Your task to perform on an android device: read, delete, or share a saved page in the chrome app Image 0: 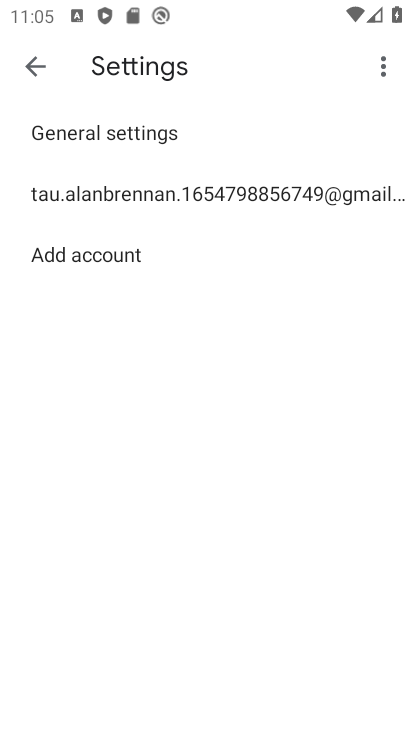
Step 0: press home button
Your task to perform on an android device: read, delete, or share a saved page in the chrome app Image 1: 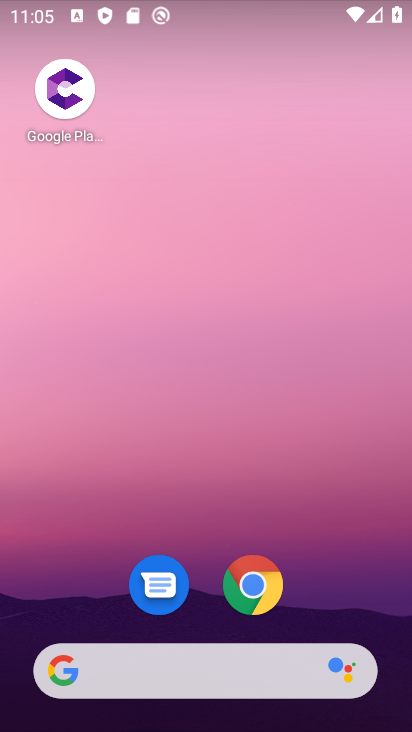
Step 1: click (268, 577)
Your task to perform on an android device: read, delete, or share a saved page in the chrome app Image 2: 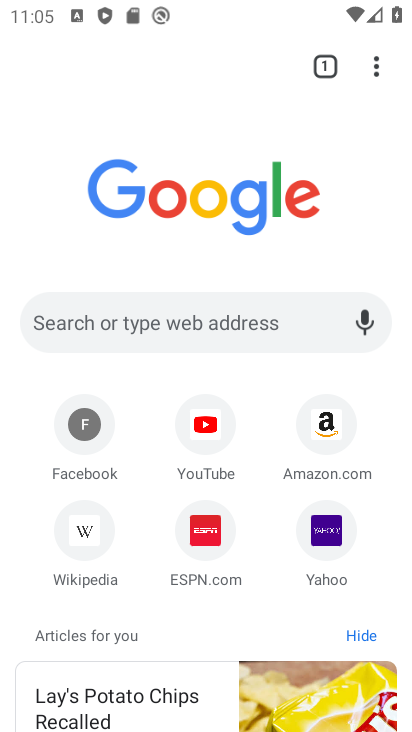
Step 2: click (379, 63)
Your task to perform on an android device: read, delete, or share a saved page in the chrome app Image 3: 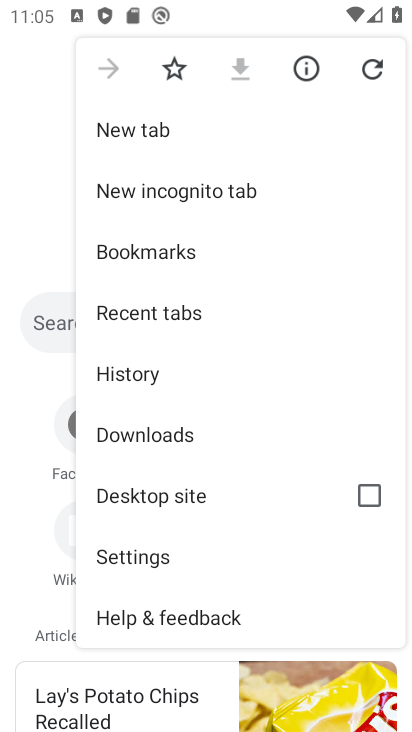
Step 3: click (156, 430)
Your task to perform on an android device: read, delete, or share a saved page in the chrome app Image 4: 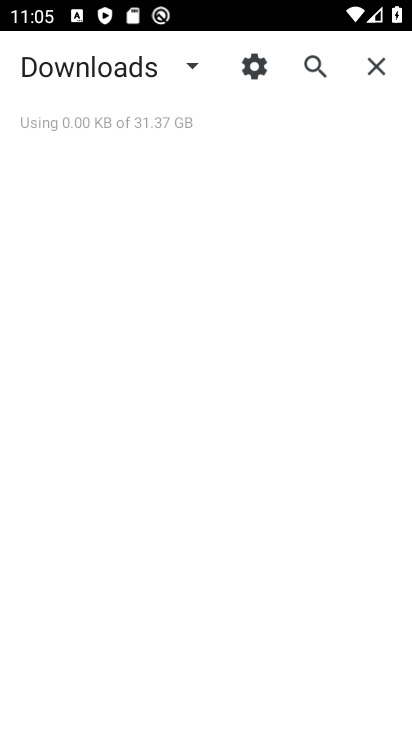
Step 4: task complete